Your task to perform on an android device: set the timer Image 0: 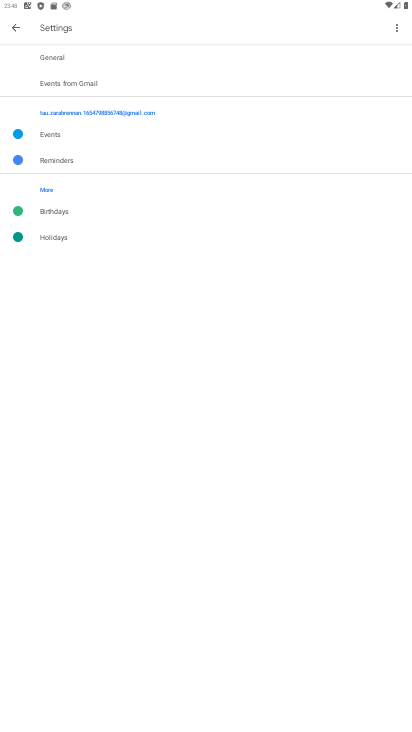
Step 0: press home button
Your task to perform on an android device: set the timer Image 1: 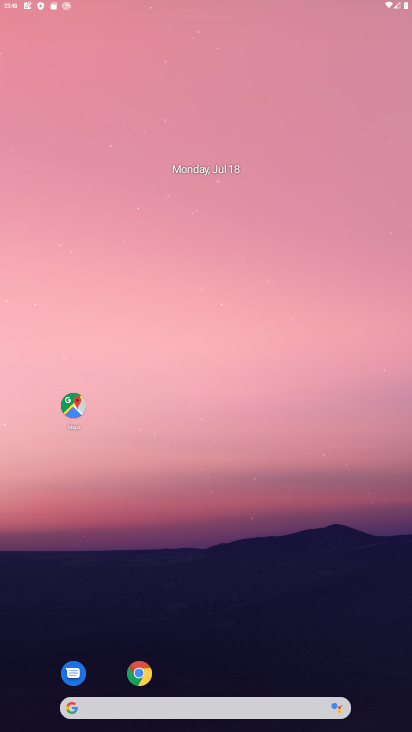
Step 1: drag from (148, 628) to (190, 209)
Your task to perform on an android device: set the timer Image 2: 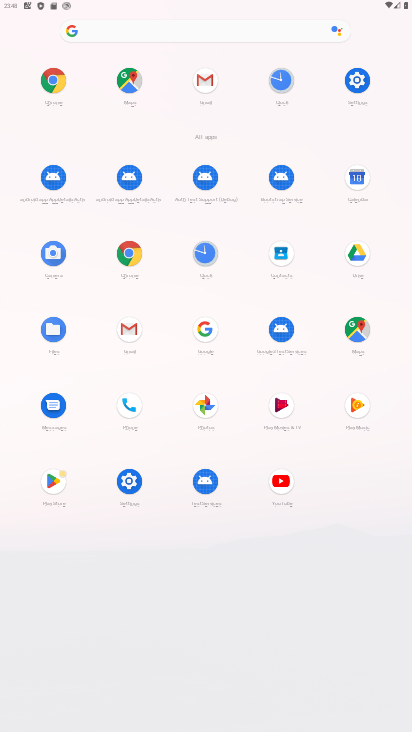
Step 2: click (285, 80)
Your task to perform on an android device: set the timer Image 3: 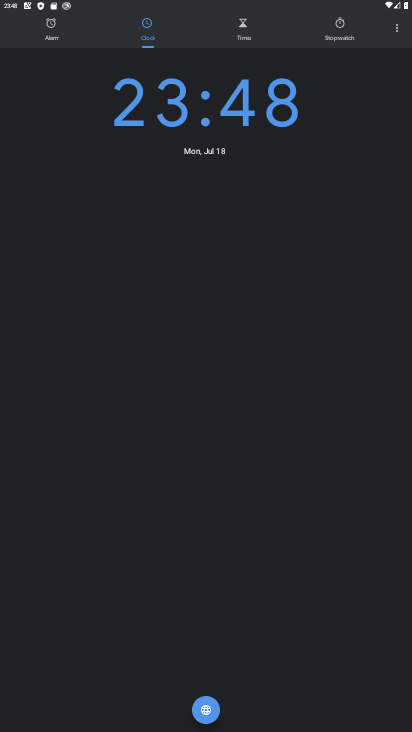
Step 3: click (236, 22)
Your task to perform on an android device: set the timer Image 4: 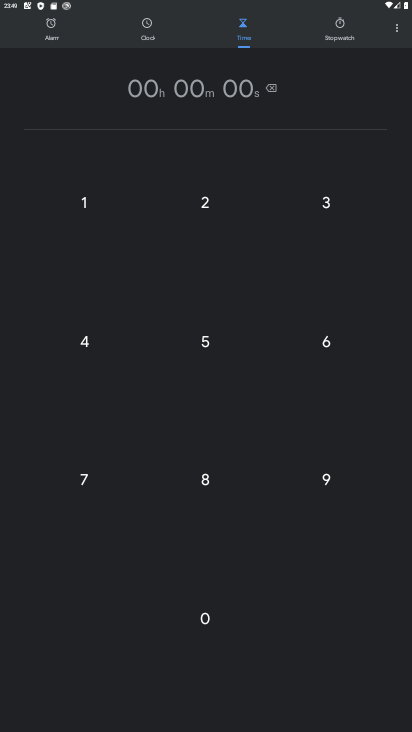
Step 4: click (172, 82)
Your task to perform on an android device: set the timer Image 5: 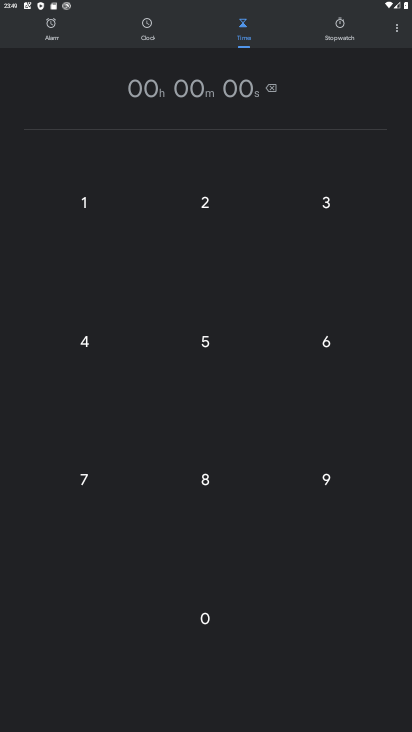
Step 5: type "8988988989 "
Your task to perform on an android device: set the timer Image 6: 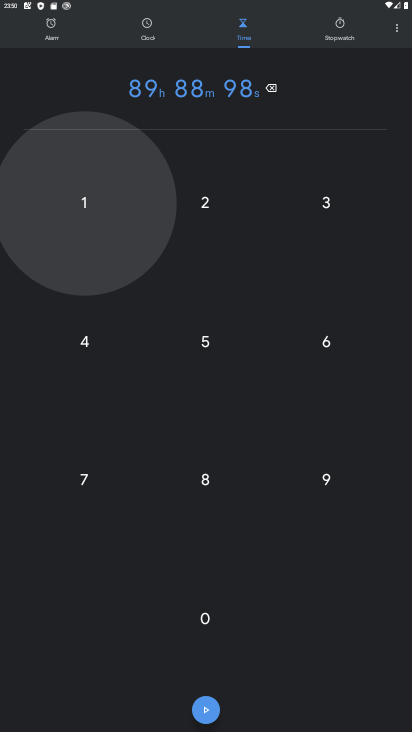
Step 6: task complete